Your task to perform on an android device: Search for a new mascara Image 0: 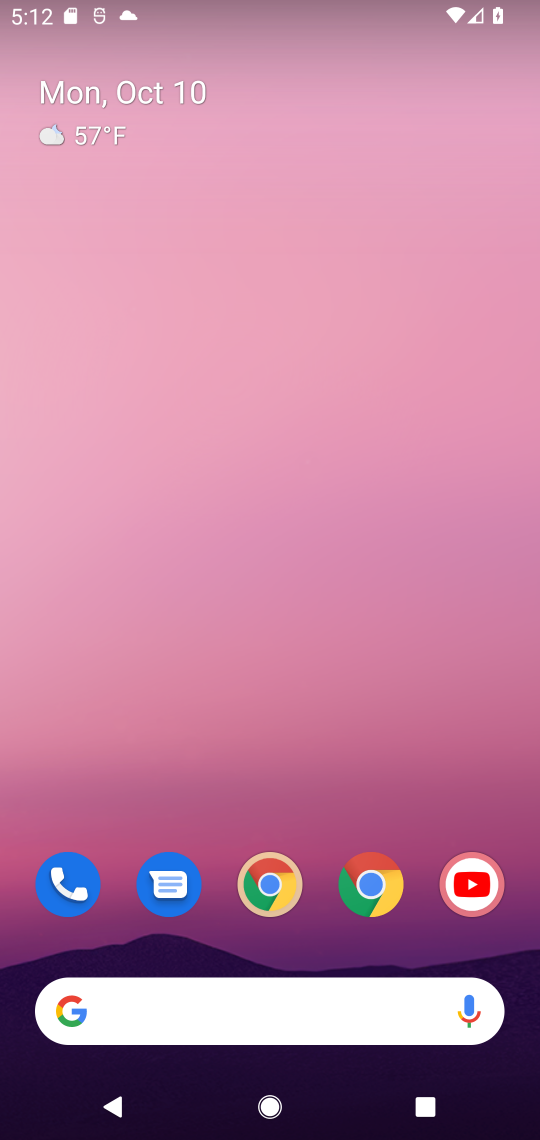
Step 0: click (337, 1005)
Your task to perform on an android device: Search for a new mascara Image 1: 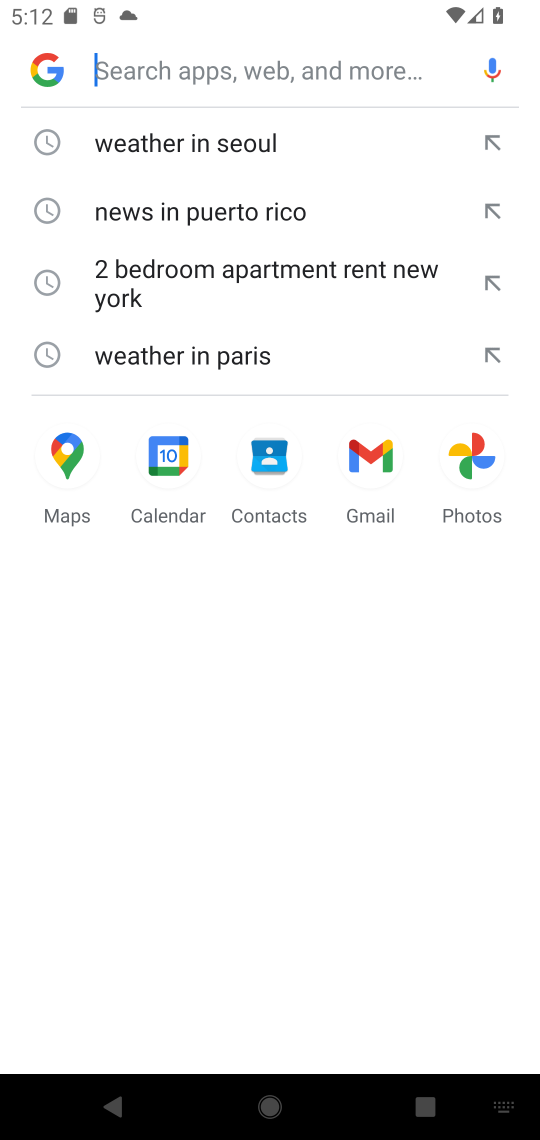
Step 1: type "mascara"
Your task to perform on an android device: Search for a new mascara Image 2: 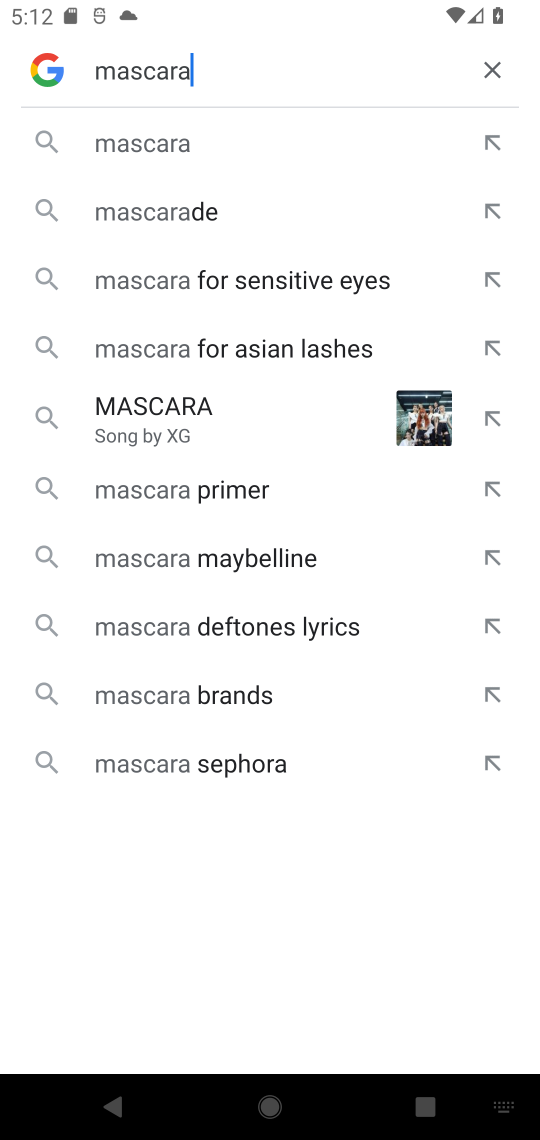
Step 2: click (170, 285)
Your task to perform on an android device: Search for a new mascara Image 3: 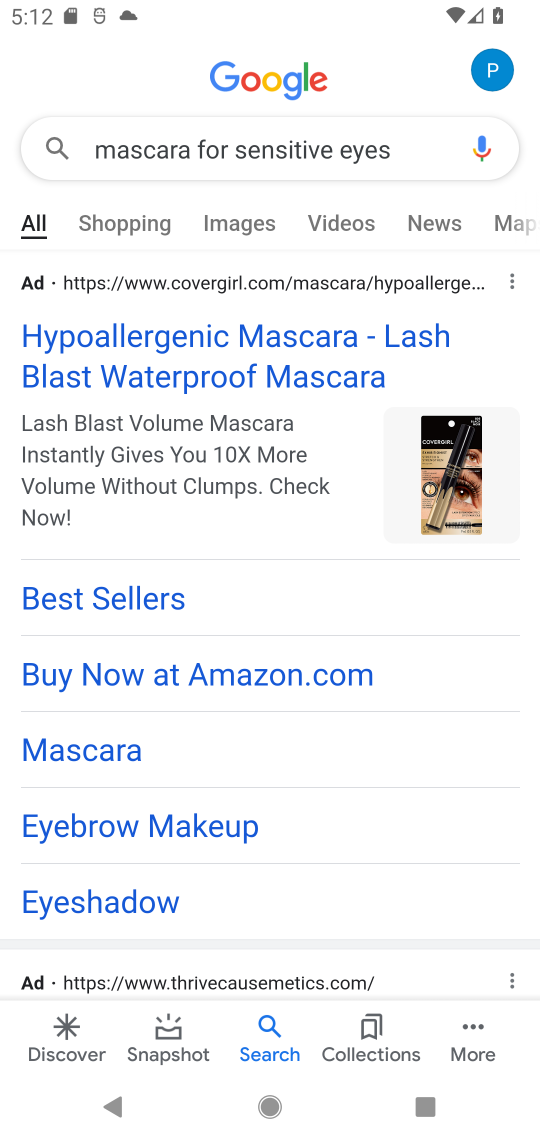
Step 3: click (152, 341)
Your task to perform on an android device: Search for a new mascara Image 4: 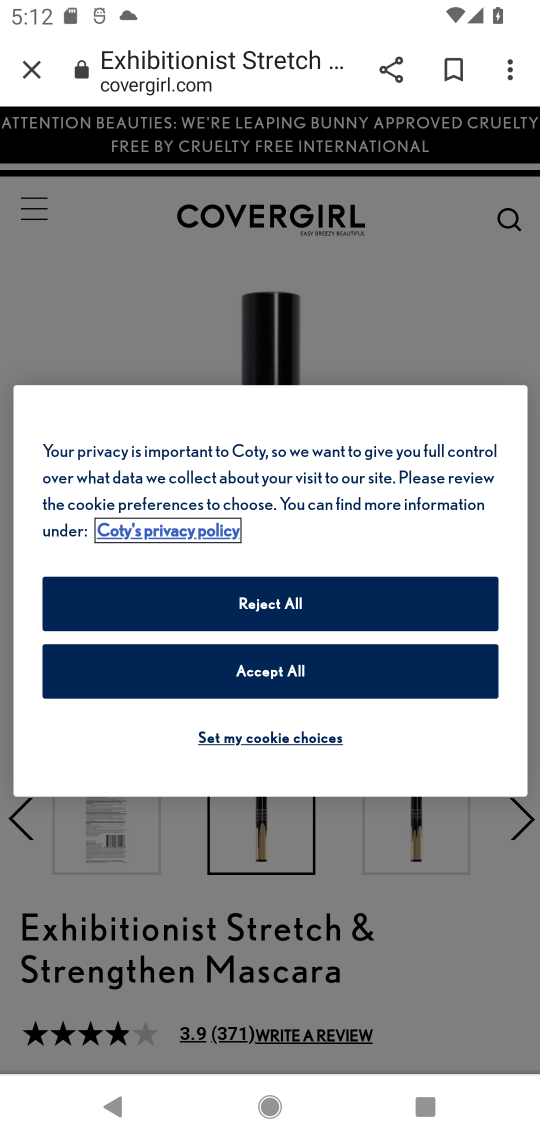
Step 4: task complete